Your task to perform on an android device: toggle pop-ups in chrome Image 0: 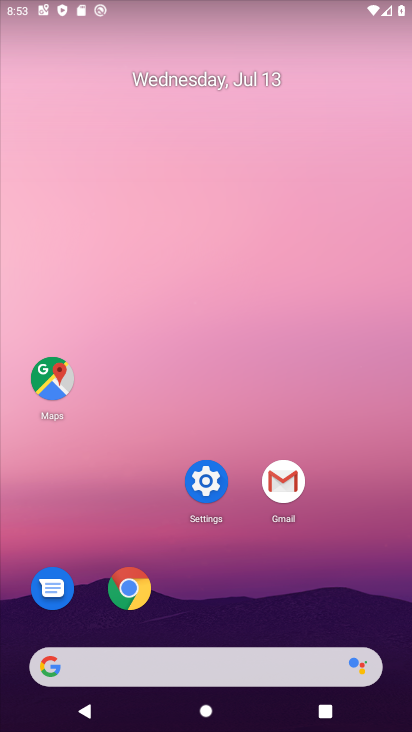
Step 0: click (129, 601)
Your task to perform on an android device: toggle pop-ups in chrome Image 1: 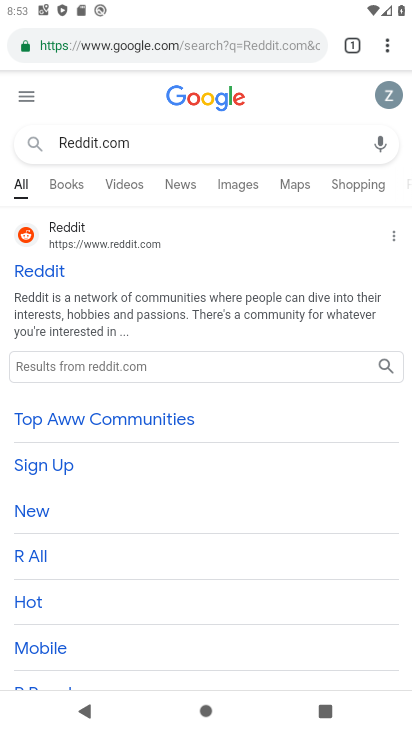
Step 1: click (390, 52)
Your task to perform on an android device: toggle pop-ups in chrome Image 2: 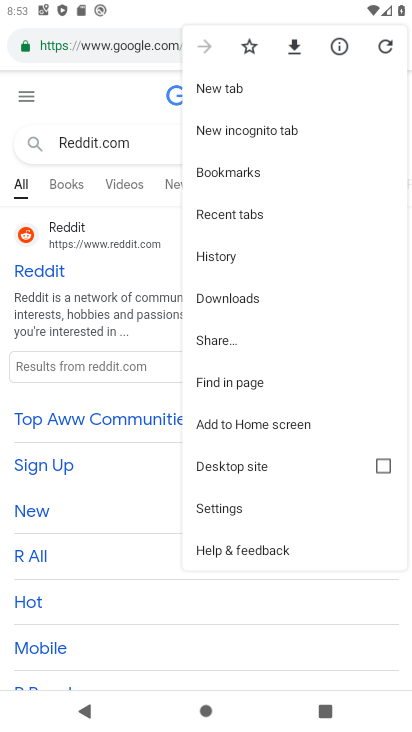
Step 2: click (214, 507)
Your task to perform on an android device: toggle pop-ups in chrome Image 3: 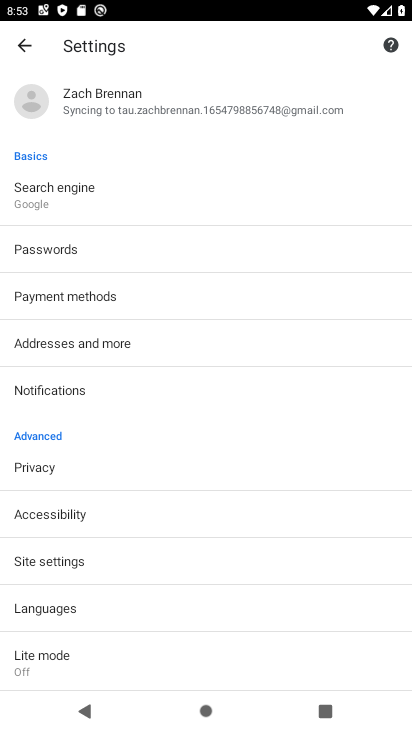
Step 3: click (46, 554)
Your task to perform on an android device: toggle pop-ups in chrome Image 4: 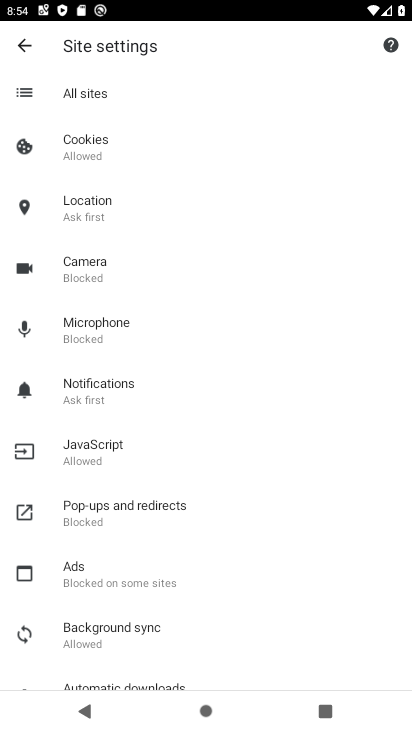
Step 4: click (91, 508)
Your task to perform on an android device: toggle pop-ups in chrome Image 5: 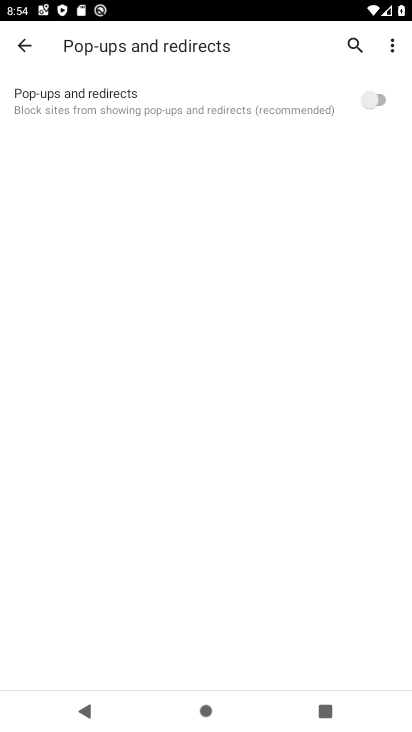
Step 5: click (380, 102)
Your task to perform on an android device: toggle pop-ups in chrome Image 6: 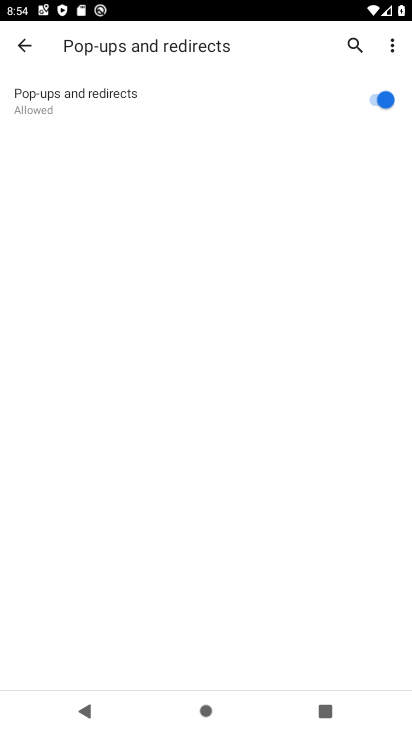
Step 6: task complete